Your task to perform on an android device: Check the news Image 0: 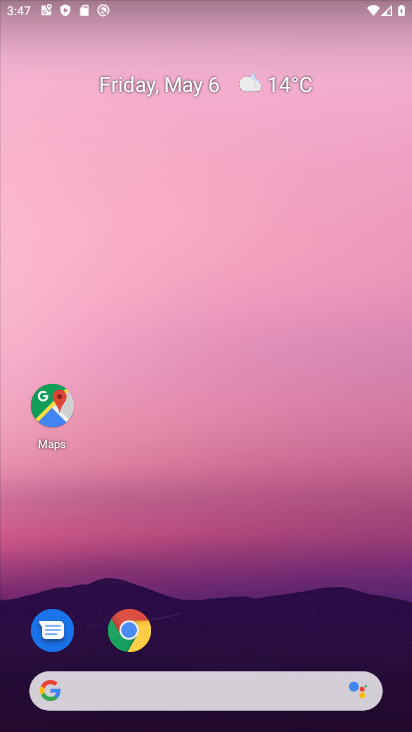
Step 0: click (194, 676)
Your task to perform on an android device: Check the news Image 1: 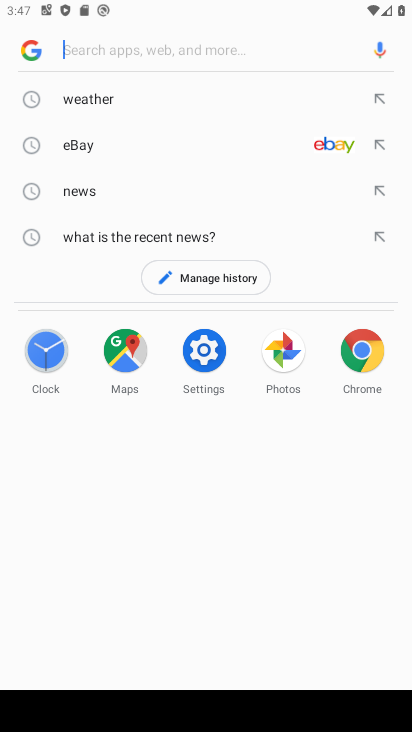
Step 1: click (157, 201)
Your task to perform on an android device: Check the news Image 2: 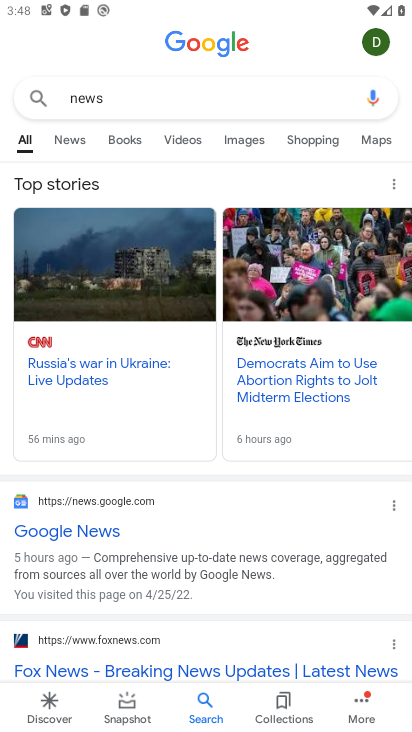
Step 2: task complete